Your task to perform on an android device: Open Chrome and go to settings Image 0: 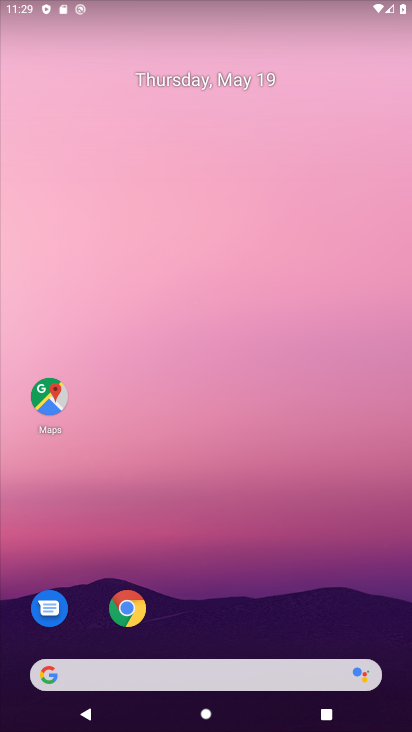
Step 0: drag from (335, 633) to (314, 218)
Your task to perform on an android device: Open Chrome and go to settings Image 1: 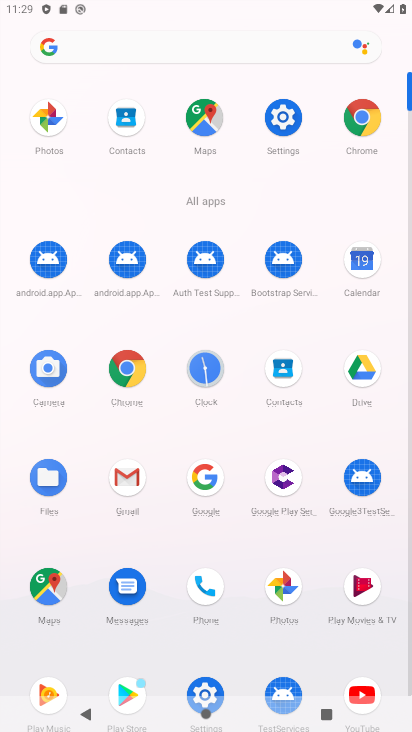
Step 1: click (138, 385)
Your task to perform on an android device: Open Chrome and go to settings Image 2: 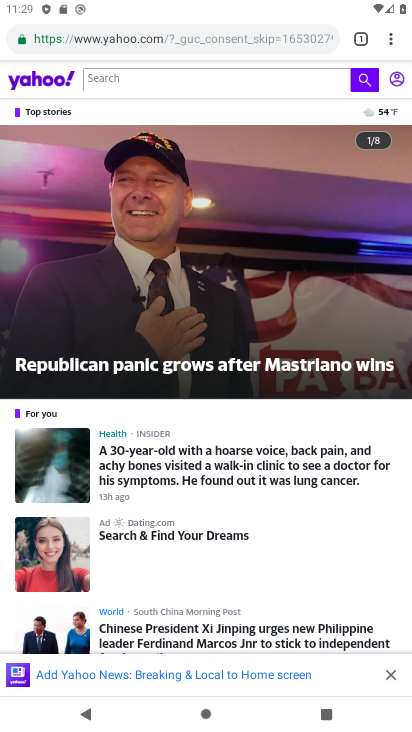
Step 2: click (392, 36)
Your task to perform on an android device: Open Chrome and go to settings Image 3: 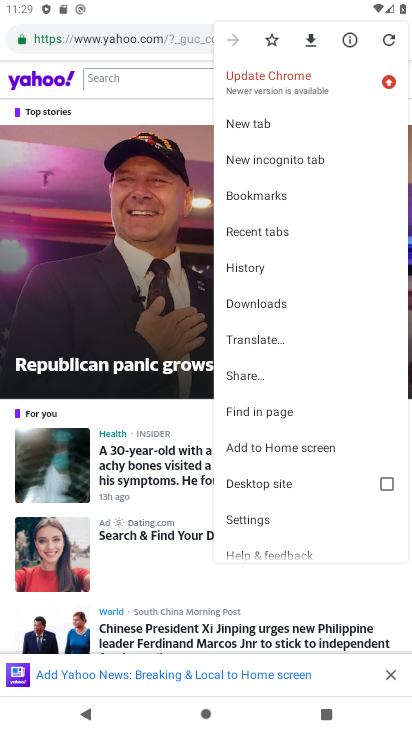
Step 3: click (269, 520)
Your task to perform on an android device: Open Chrome and go to settings Image 4: 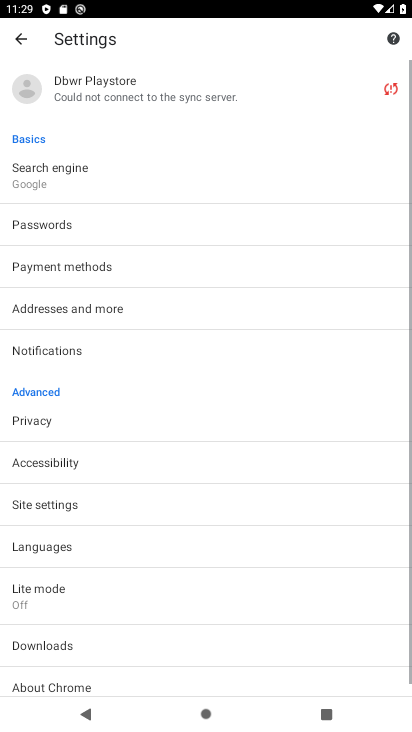
Step 4: drag from (279, 546) to (289, 366)
Your task to perform on an android device: Open Chrome and go to settings Image 5: 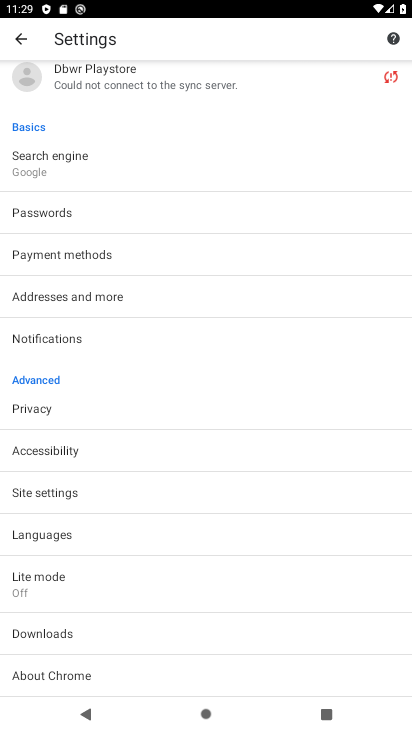
Step 5: drag from (309, 508) to (325, 432)
Your task to perform on an android device: Open Chrome and go to settings Image 6: 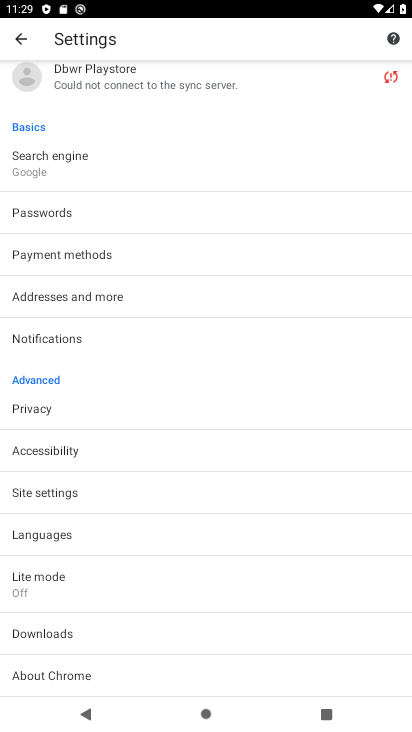
Step 6: drag from (325, 477) to (333, 400)
Your task to perform on an android device: Open Chrome and go to settings Image 7: 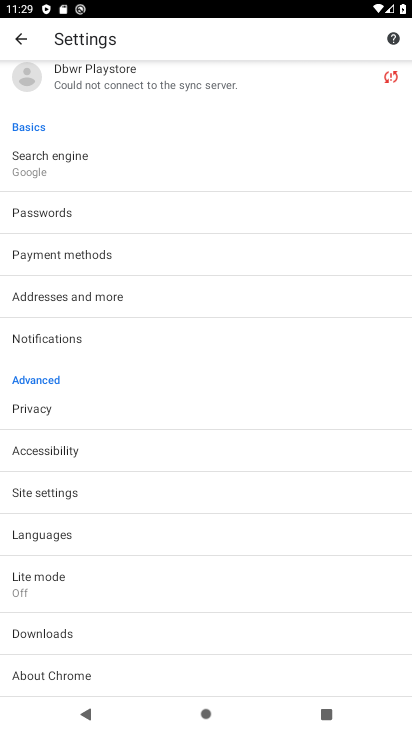
Step 7: drag from (304, 493) to (309, 389)
Your task to perform on an android device: Open Chrome and go to settings Image 8: 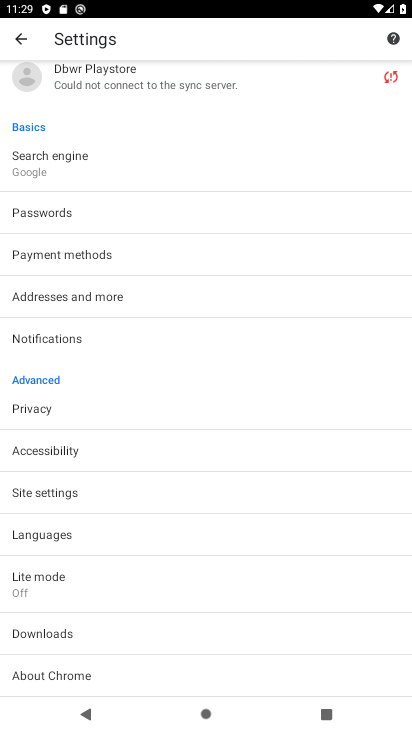
Step 8: drag from (340, 309) to (345, 413)
Your task to perform on an android device: Open Chrome and go to settings Image 9: 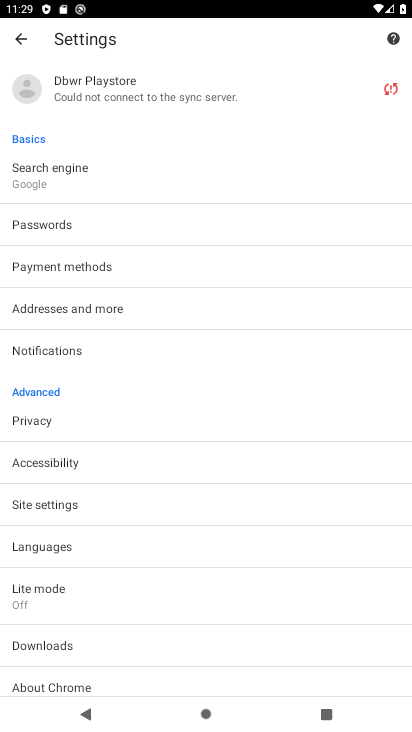
Step 9: click (329, 330)
Your task to perform on an android device: Open Chrome and go to settings Image 10: 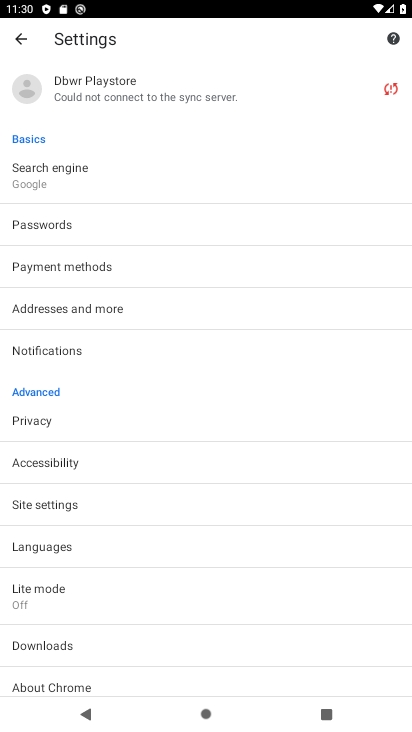
Step 10: task complete